Your task to perform on an android device: turn on wifi Image 0: 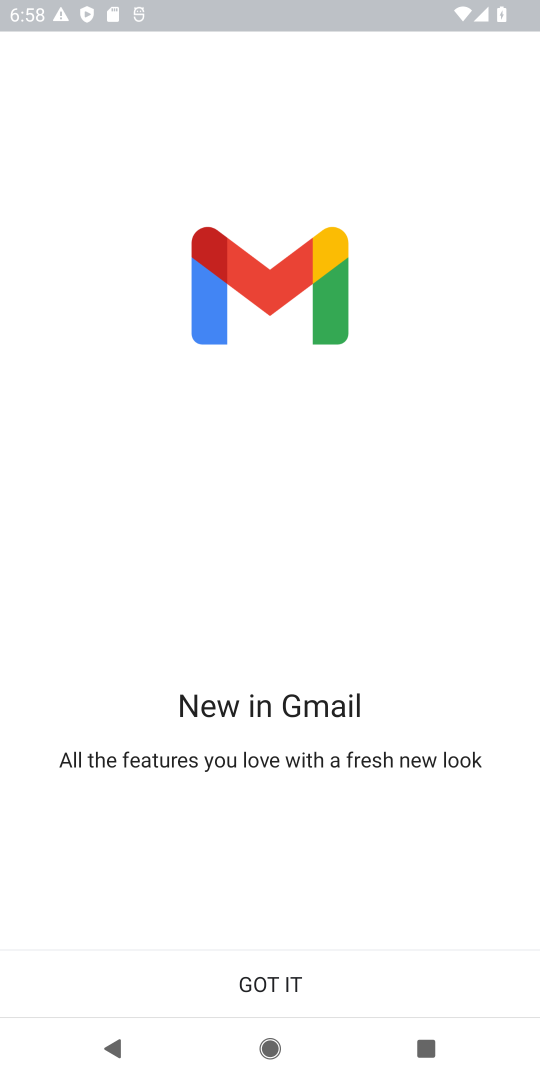
Step 0: click (352, 987)
Your task to perform on an android device: turn on wifi Image 1: 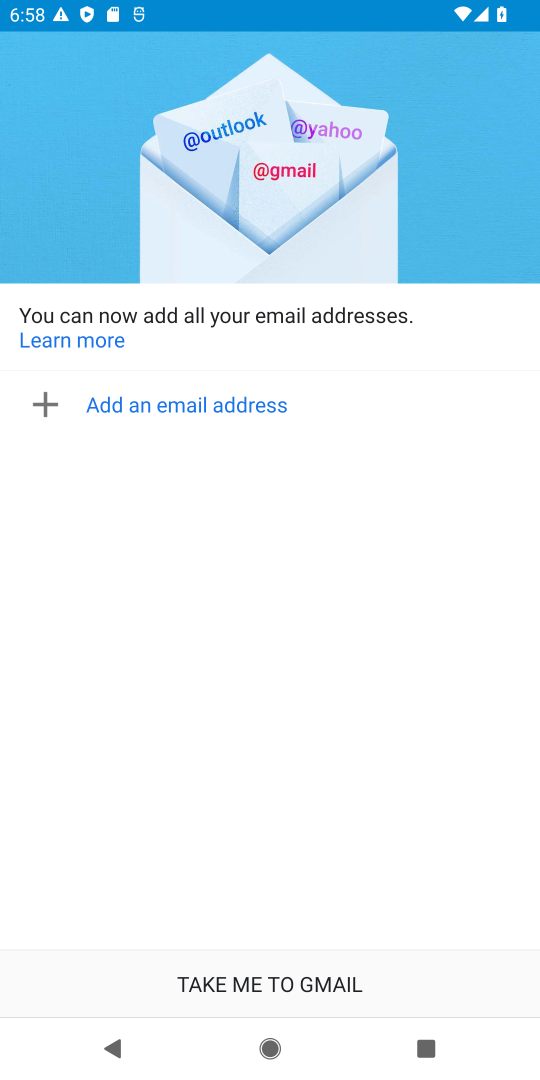
Step 1: click (233, 970)
Your task to perform on an android device: turn on wifi Image 2: 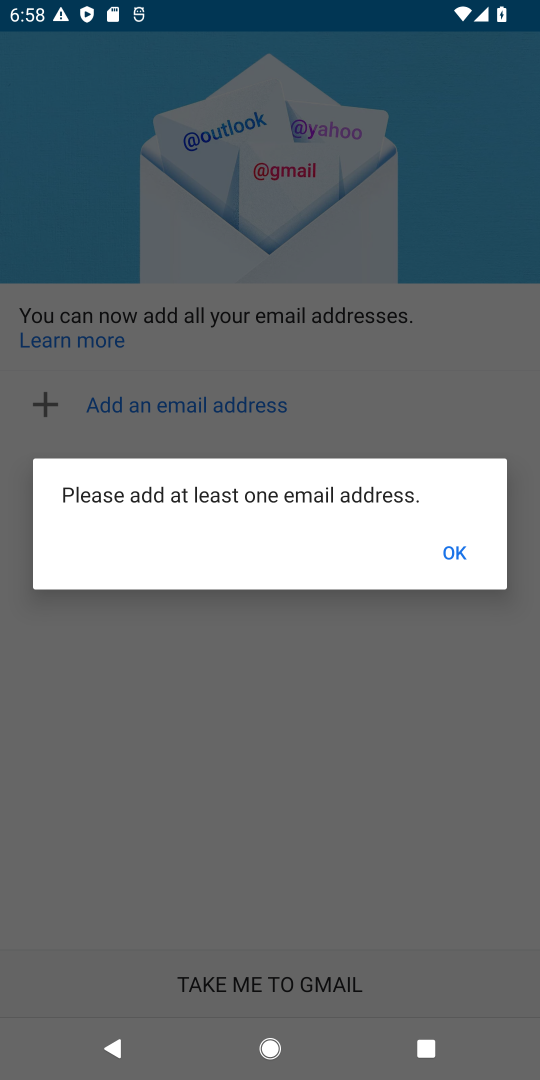
Step 2: click (501, 565)
Your task to perform on an android device: turn on wifi Image 3: 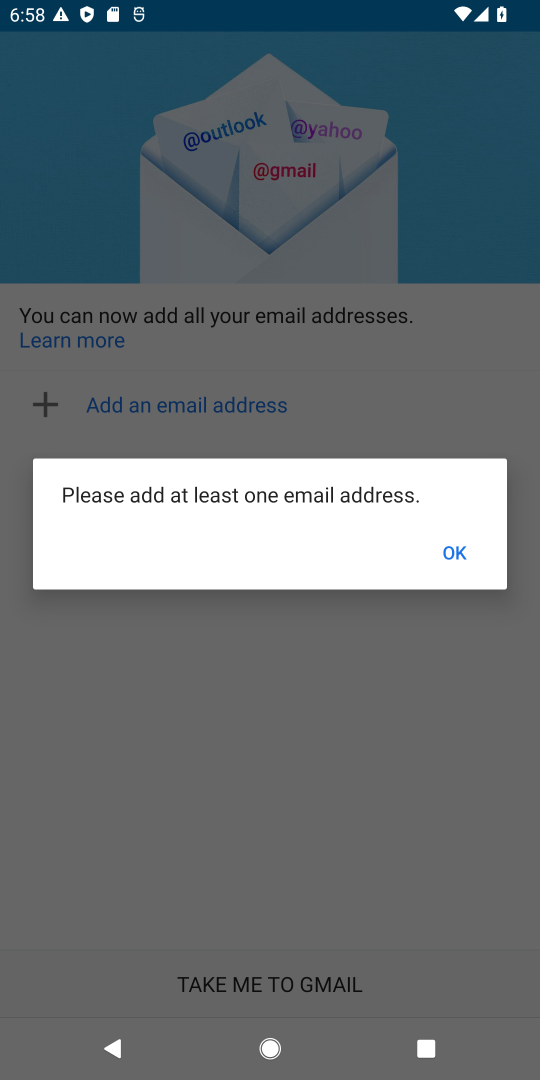
Step 3: click (482, 562)
Your task to perform on an android device: turn on wifi Image 4: 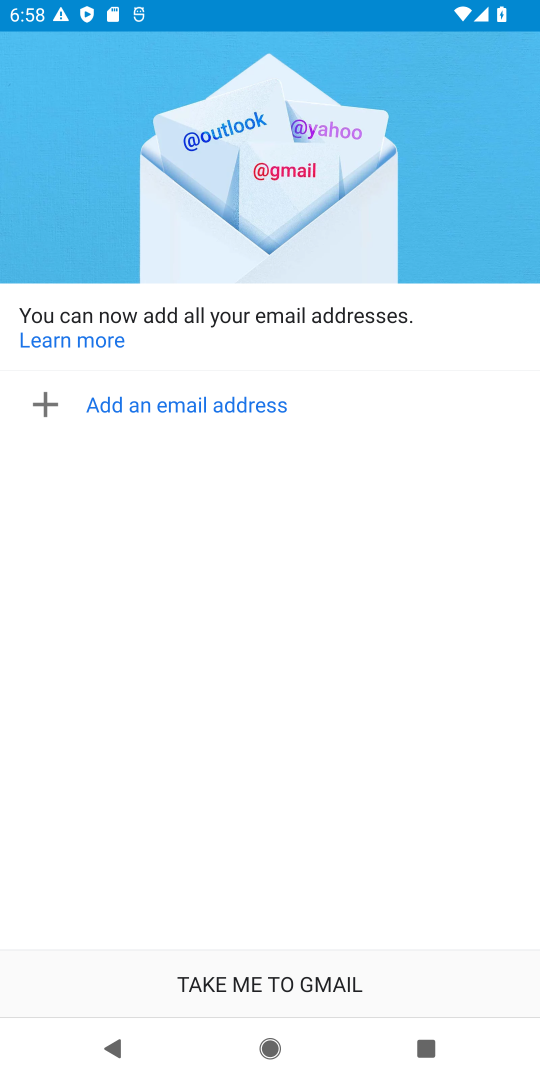
Step 4: press home button
Your task to perform on an android device: turn on wifi Image 5: 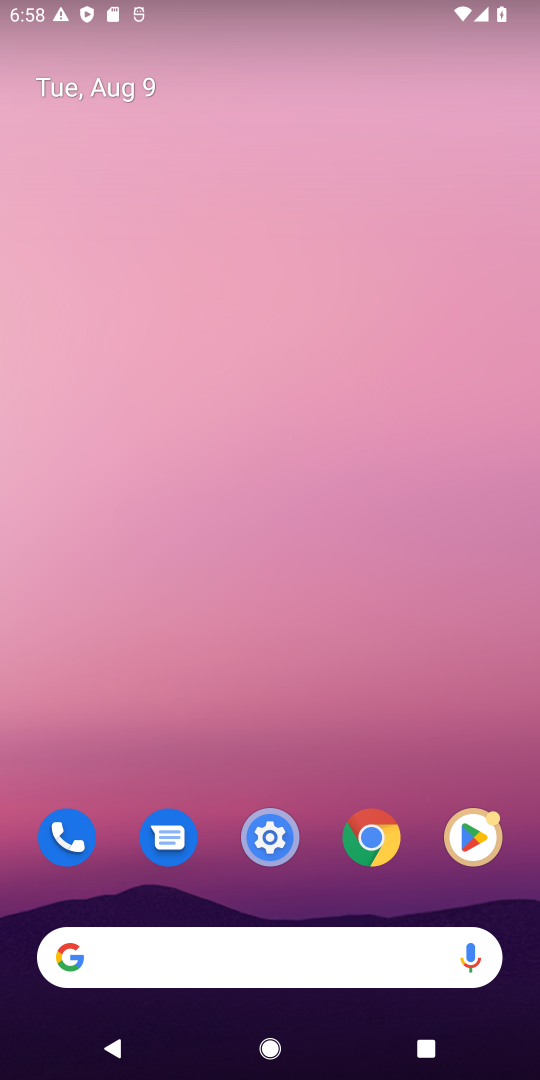
Step 5: click (268, 827)
Your task to perform on an android device: turn on wifi Image 6: 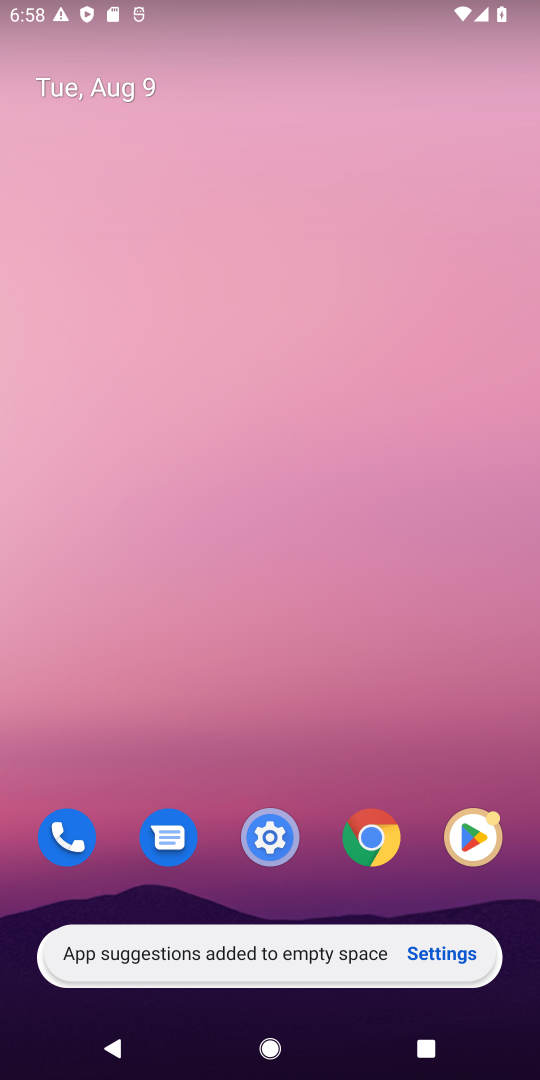
Step 6: click (268, 825)
Your task to perform on an android device: turn on wifi Image 7: 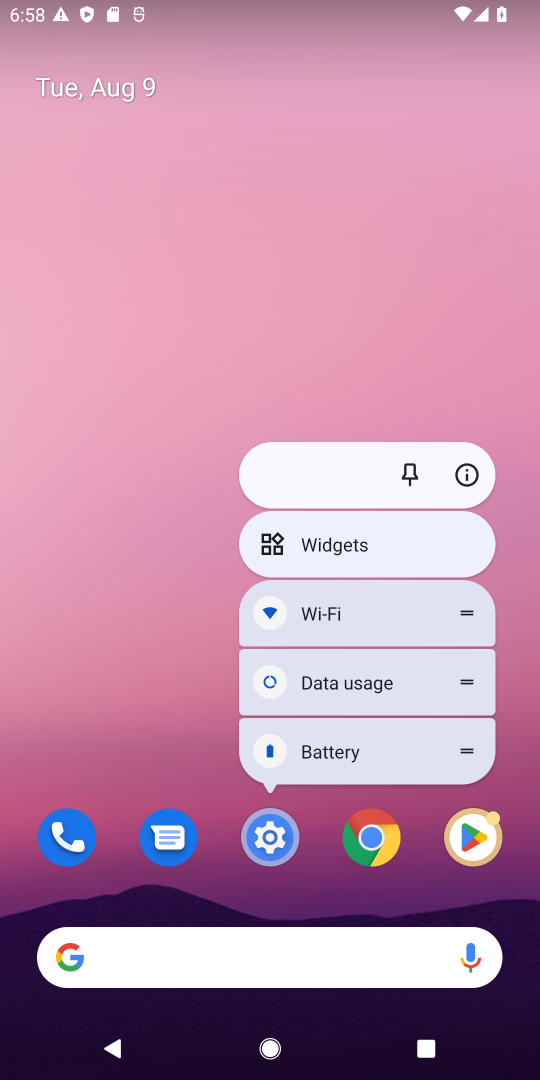
Step 7: click (456, 472)
Your task to perform on an android device: turn on wifi Image 8: 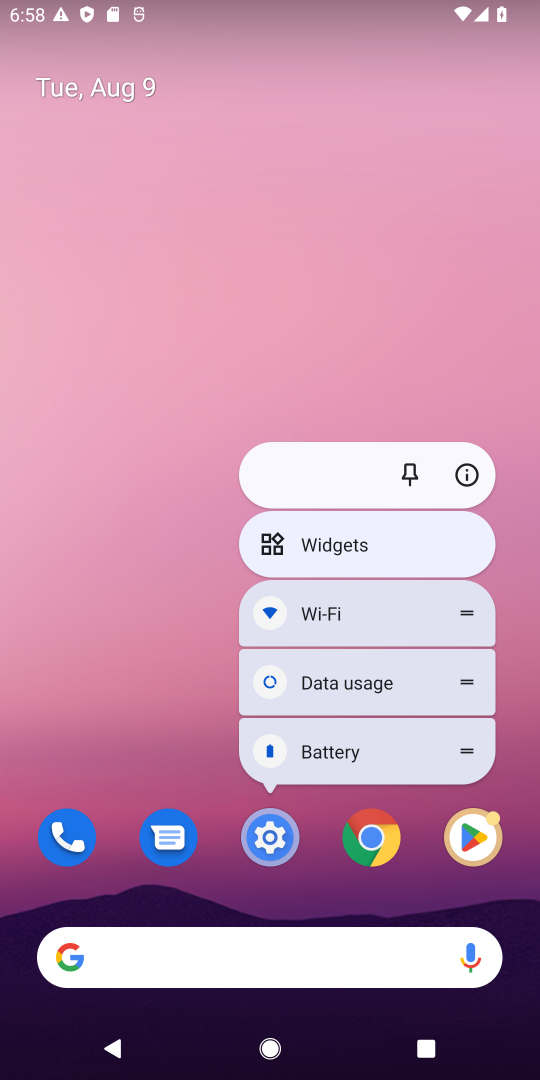
Step 8: click (468, 472)
Your task to perform on an android device: turn on wifi Image 9: 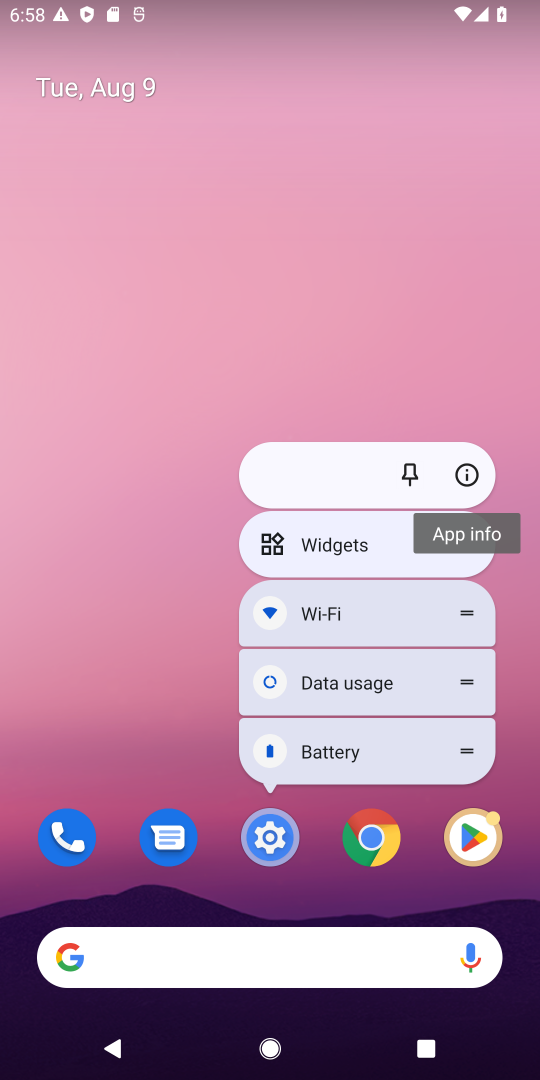
Step 9: click (462, 469)
Your task to perform on an android device: turn on wifi Image 10: 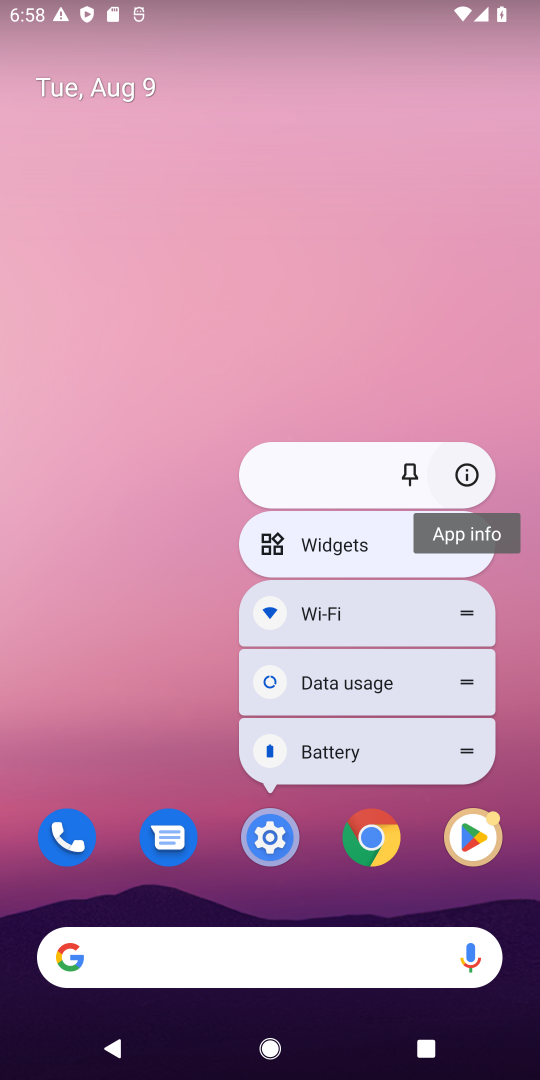
Step 10: click (467, 475)
Your task to perform on an android device: turn on wifi Image 11: 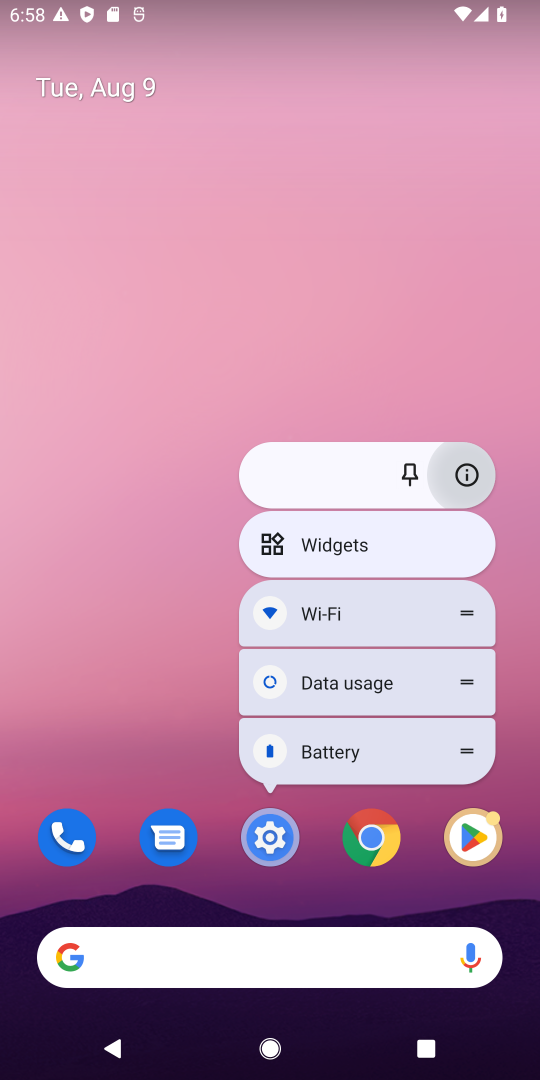
Step 11: click (468, 475)
Your task to perform on an android device: turn on wifi Image 12: 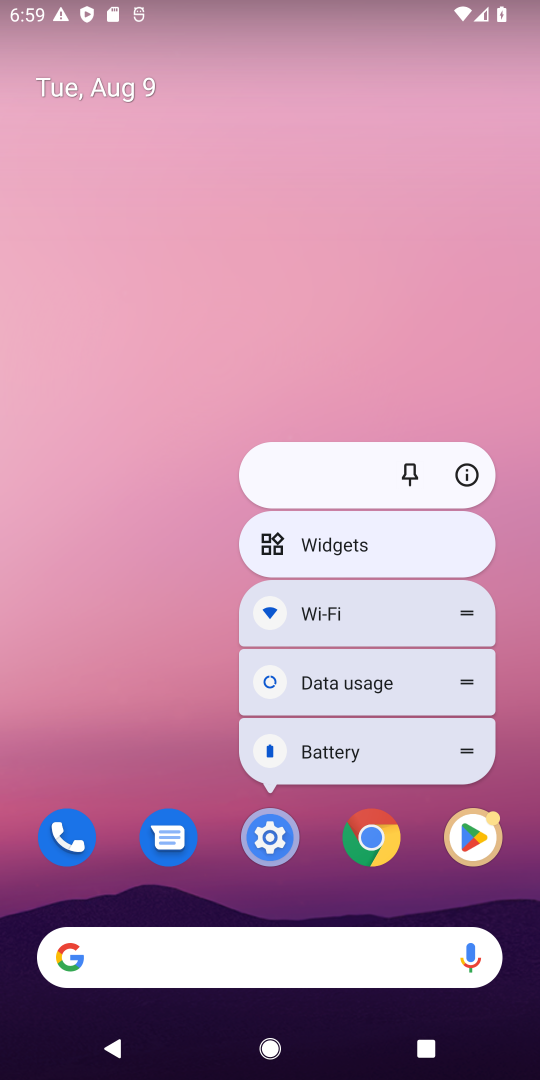
Step 12: click (464, 471)
Your task to perform on an android device: turn on wifi Image 13: 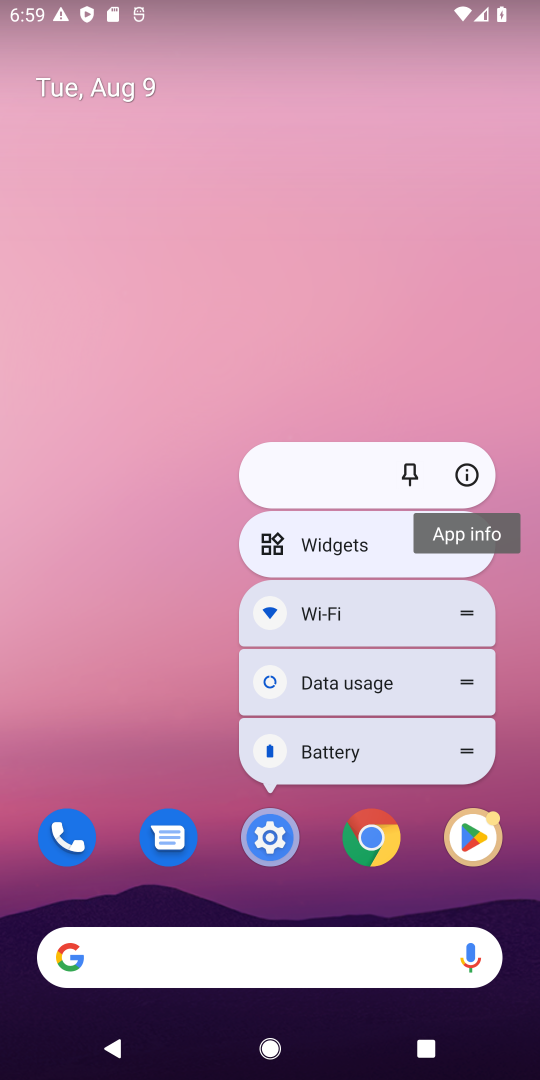
Step 13: click (263, 830)
Your task to perform on an android device: turn on wifi Image 14: 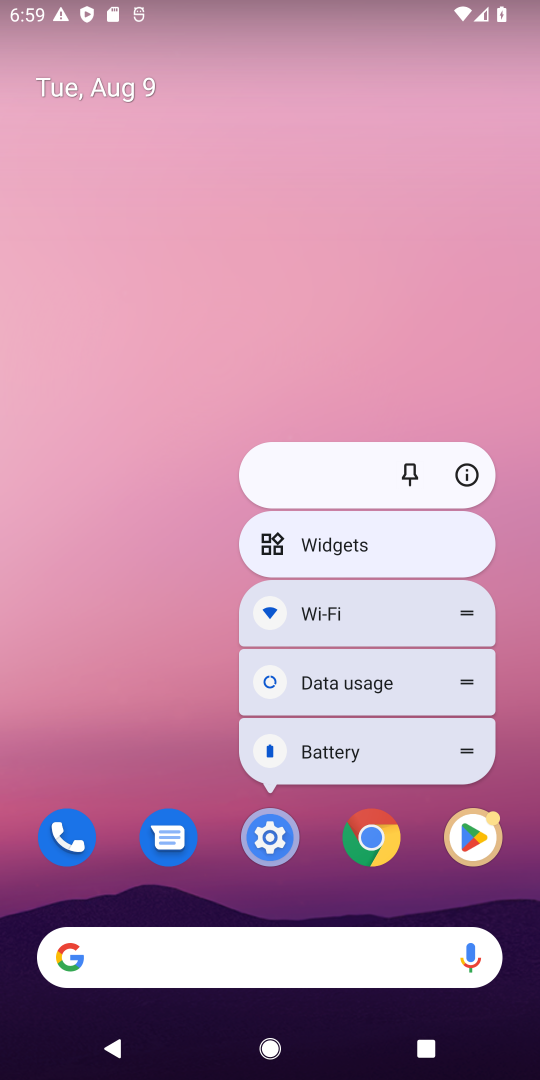
Step 14: click (459, 467)
Your task to perform on an android device: turn on wifi Image 15: 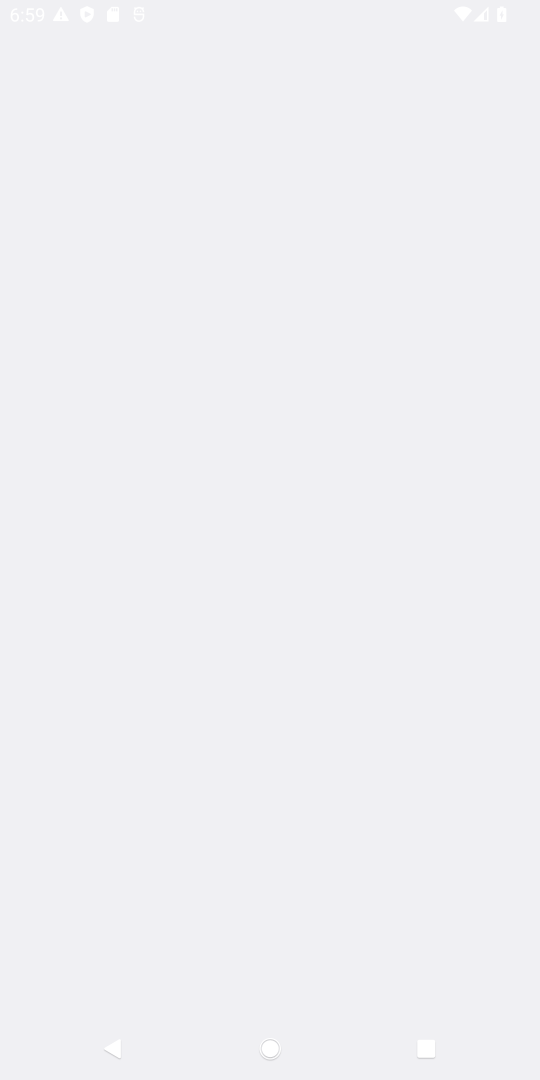
Step 15: click (459, 467)
Your task to perform on an android device: turn on wifi Image 16: 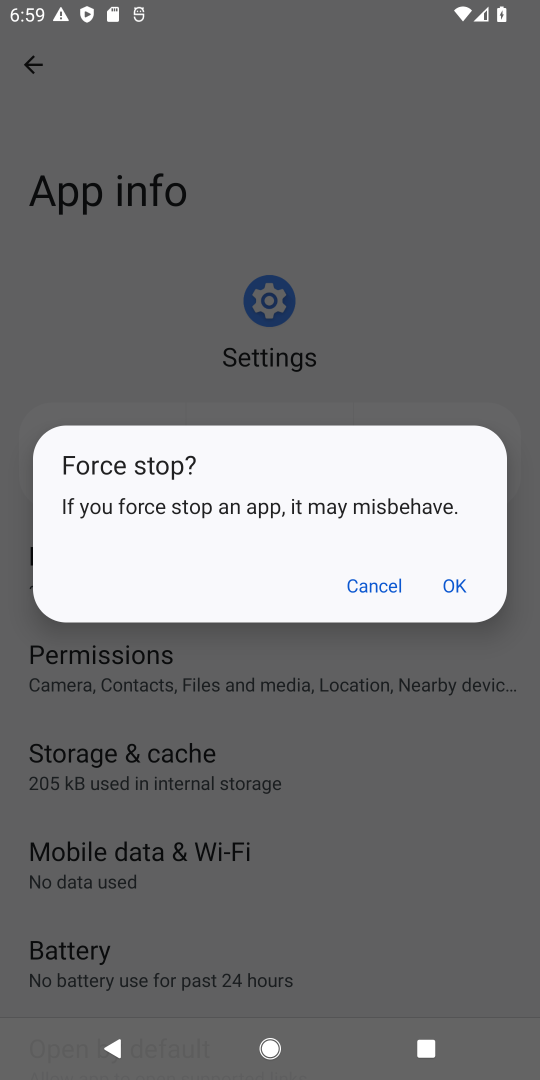
Step 16: click (376, 598)
Your task to perform on an android device: turn on wifi Image 17: 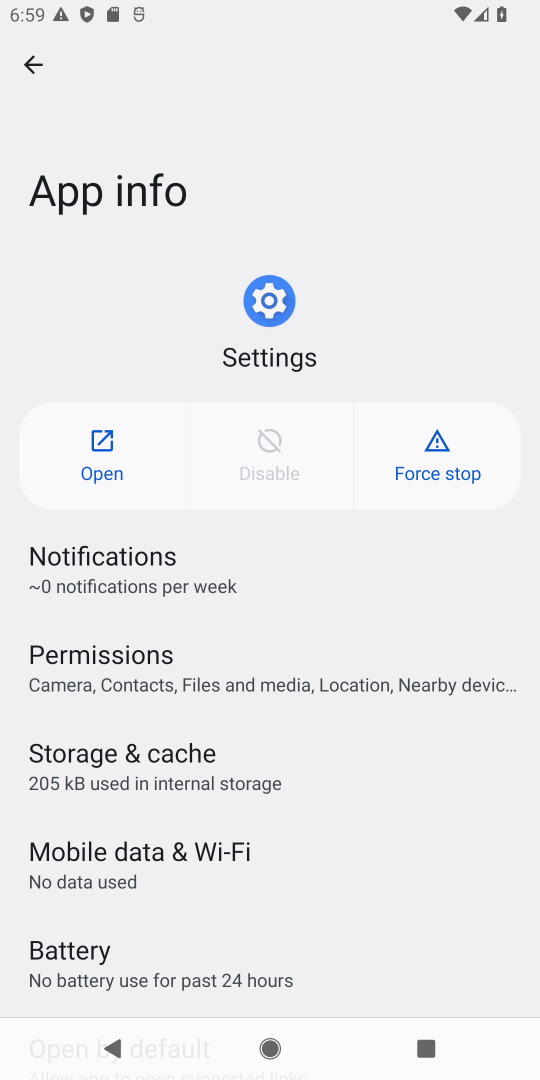
Step 17: click (92, 466)
Your task to perform on an android device: turn on wifi Image 18: 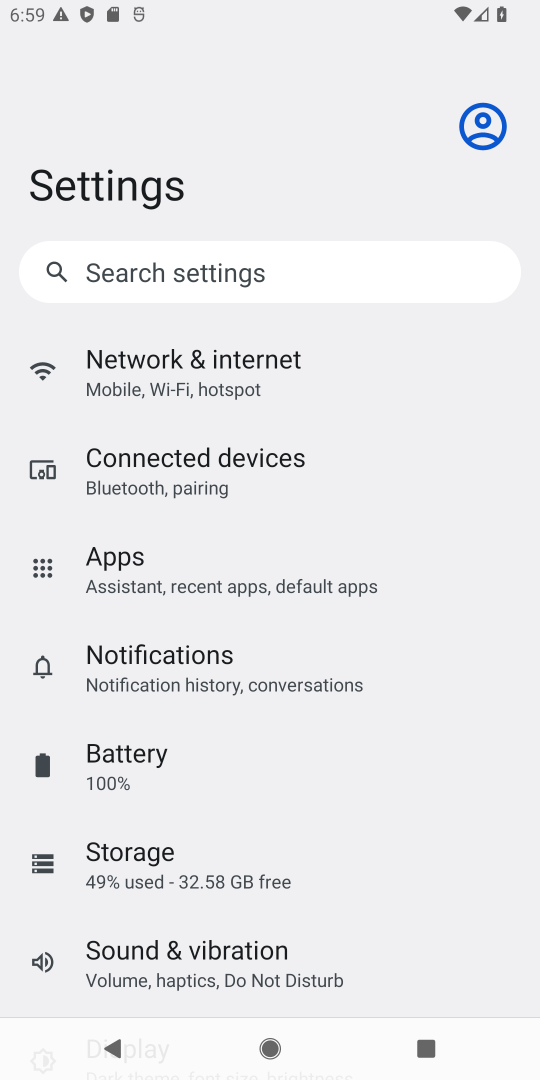
Step 18: click (222, 360)
Your task to perform on an android device: turn on wifi Image 19: 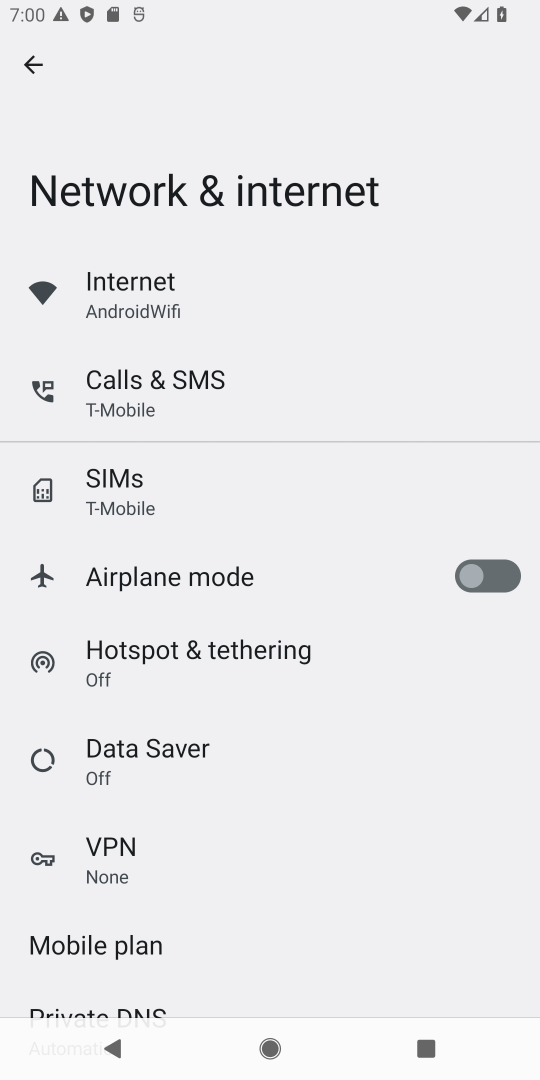
Step 19: click (236, 275)
Your task to perform on an android device: turn on wifi Image 20: 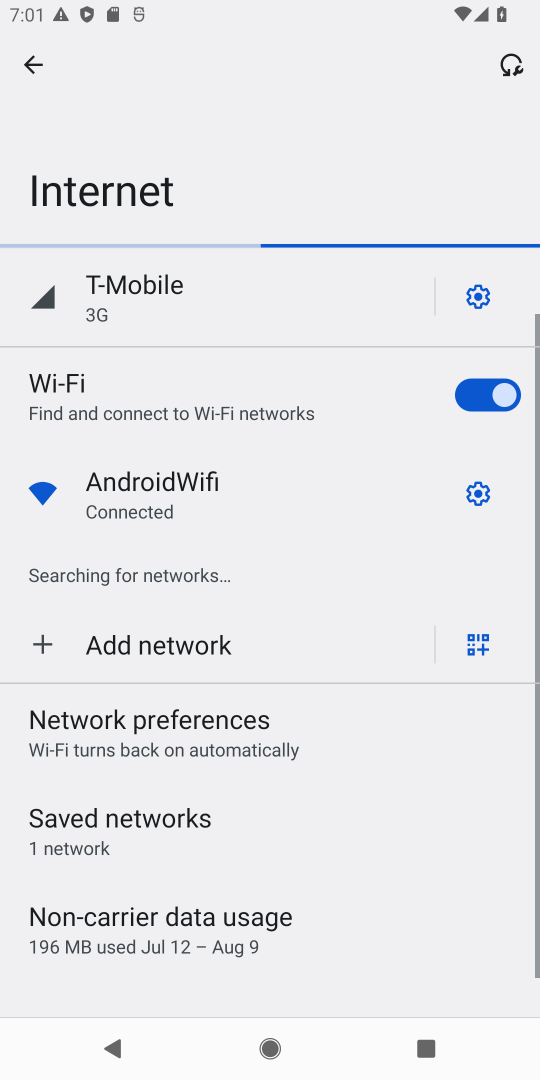
Step 20: click (340, 606)
Your task to perform on an android device: turn on wifi Image 21: 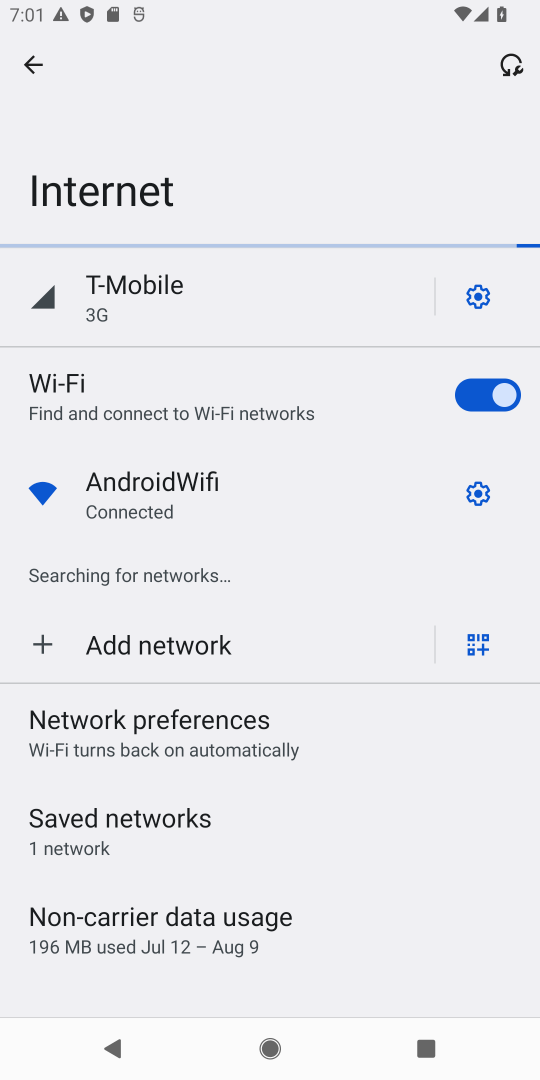
Step 21: click (285, 438)
Your task to perform on an android device: turn on wifi Image 22: 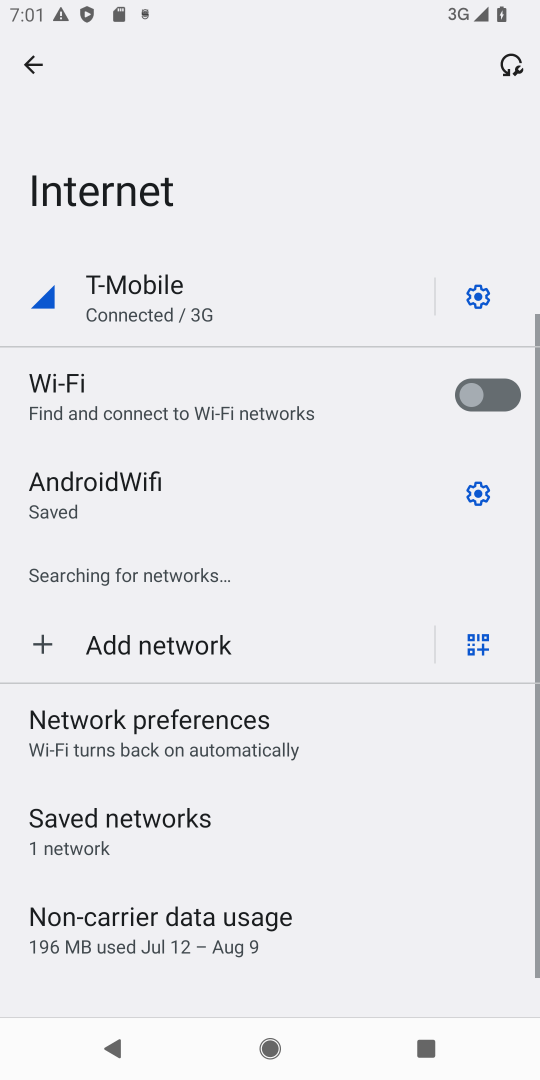
Step 22: drag from (350, 859) to (310, 475)
Your task to perform on an android device: turn on wifi Image 23: 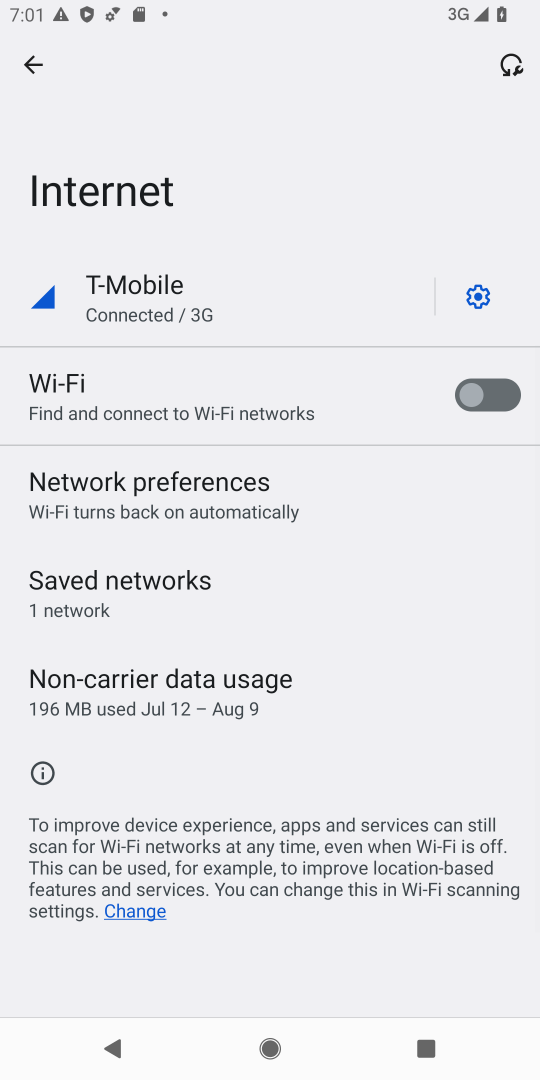
Step 23: drag from (364, 674) to (469, 1057)
Your task to perform on an android device: turn on wifi Image 24: 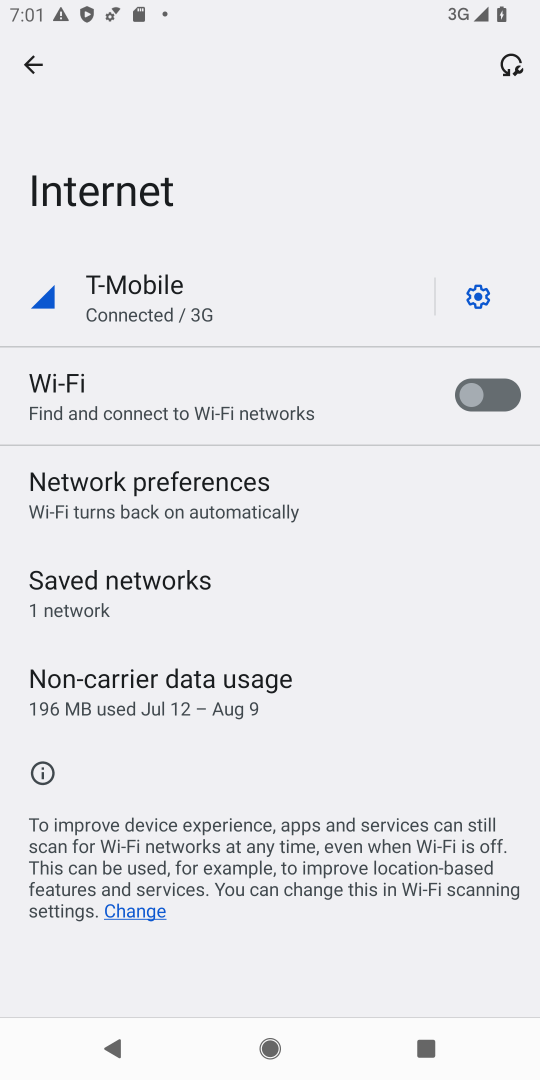
Step 24: click (477, 386)
Your task to perform on an android device: turn on wifi Image 25: 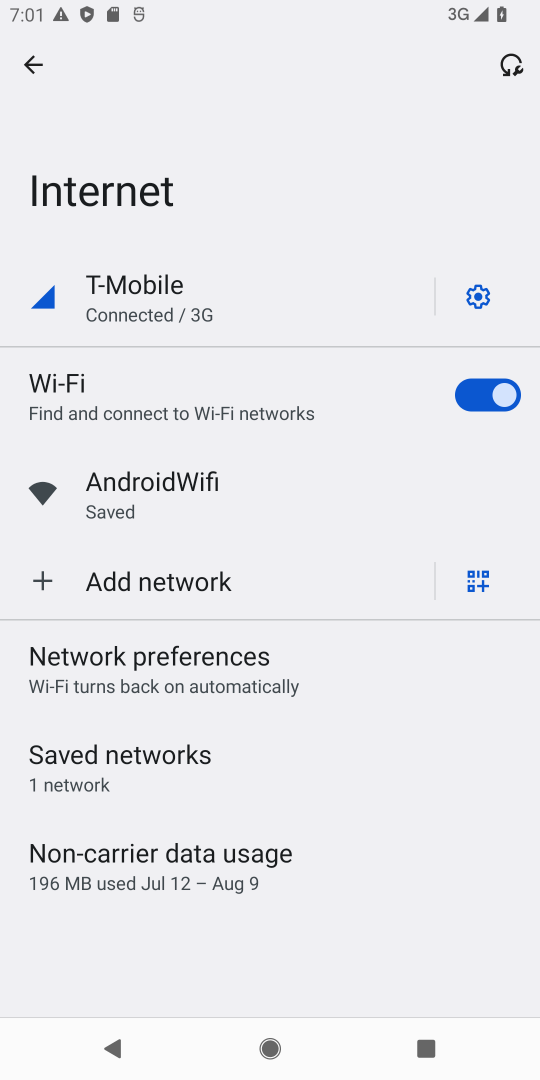
Step 25: task complete